Your task to perform on an android device: open app "Adobe Acrobat Reader" (install if not already installed) and enter user name: "nondescriptly@inbox.com" and password: "negating" Image 0: 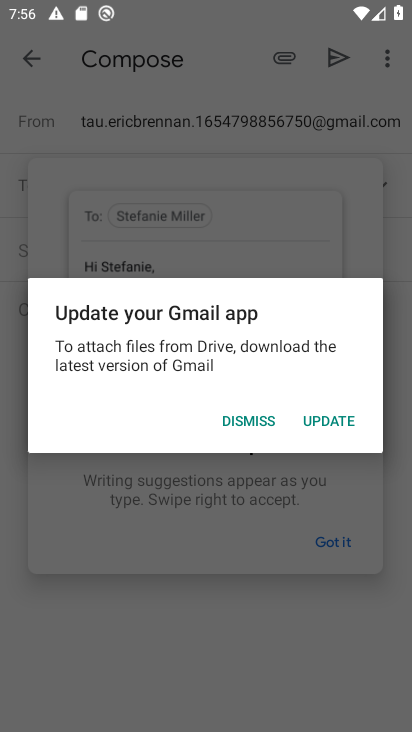
Step 0: press home button
Your task to perform on an android device: open app "Adobe Acrobat Reader" (install if not already installed) and enter user name: "nondescriptly@inbox.com" and password: "negating" Image 1: 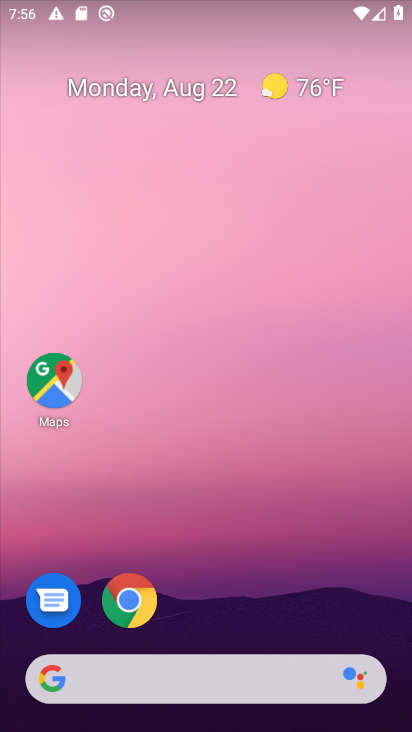
Step 1: drag from (211, 607) to (218, 184)
Your task to perform on an android device: open app "Adobe Acrobat Reader" (install if not already installed) and enter user name: "nondescriptly@inbox.com" and password: "negating" Image 2: 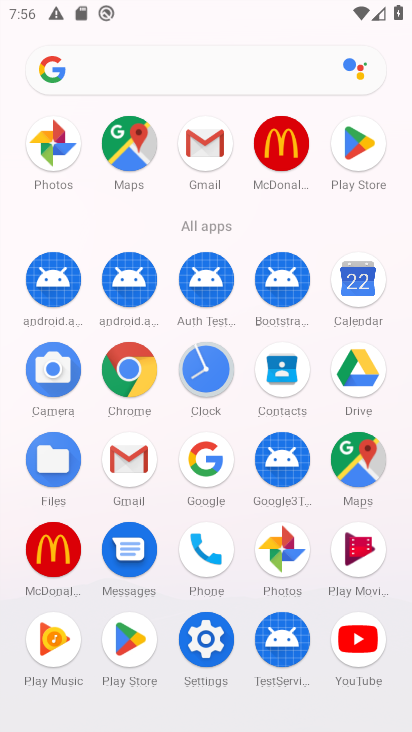
Step 2: click (345, 140)
Your task to perform on an android device: open app "Adobe Acrobat Reader" (install if not already installed) and enter user name: "nondescriptly@inbox.com" and password: "negating" Image 3: 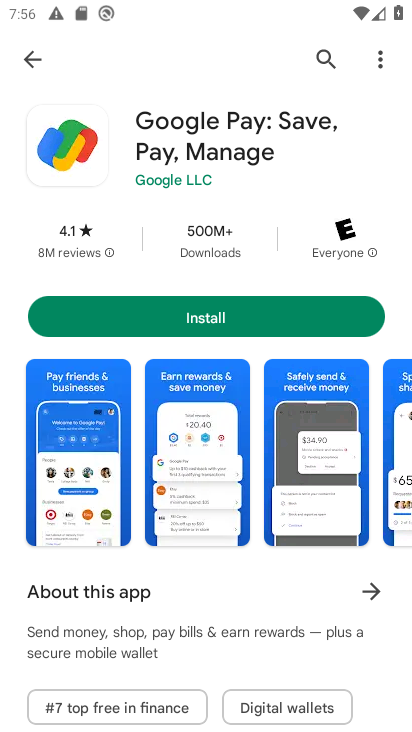
Step 3: click (326, 58)
Your task to perform on an android device: open app "Adobe Acrobat Reader" (install if not already installed) and enter user name: "nondescriptly@inbox.com" and password: "negating" Image 4: 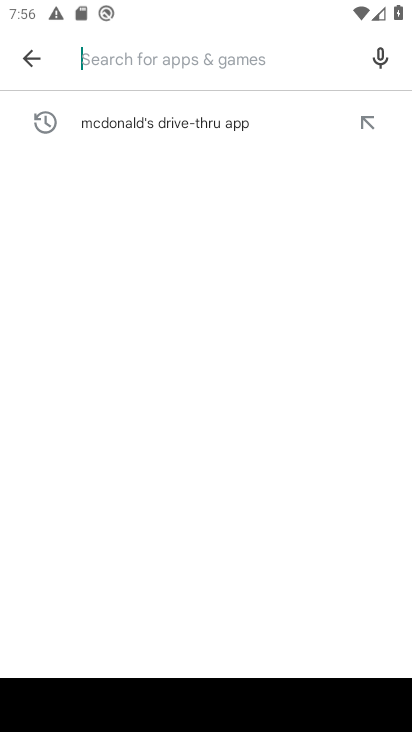
Step 4: type "Adobe Acrobat Reader"
Your task to perform on an android device: open app "Adobe Acrobat Reader" (install if not already installed) and enter user name: "nondescriptly@inbox.com" and password: "negating" Image 5: 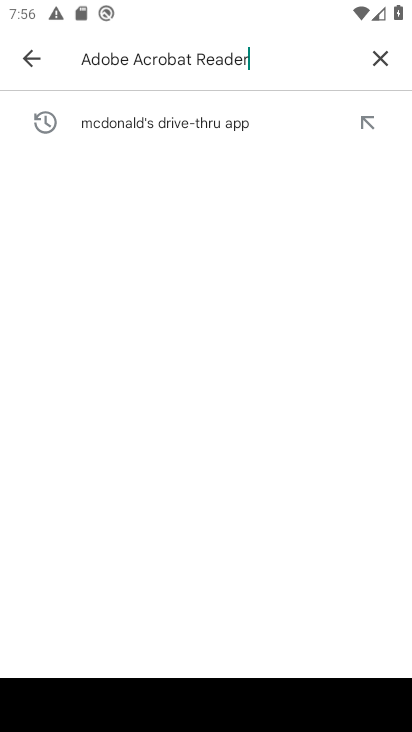
Step 5: type ""
Your task to perform on an android device: open app "Adobe Acrobat Reader" (install if not already installed) and enter user name: "nondescriptly@inbox.com" and password: "negating" Image 6: 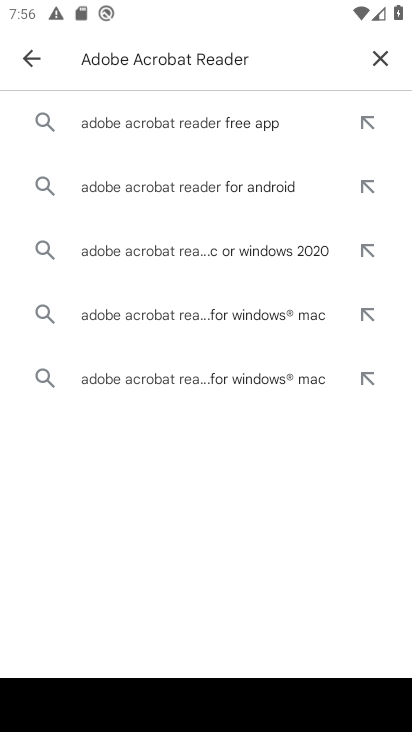
Step 6: click (219, 122)
Your task to perform on an android device: open app "Adobe Acrobat Reader" (install if not already installed) and enter user name: "nondescriptly@inbox.com" and password: "negating" Image 7: 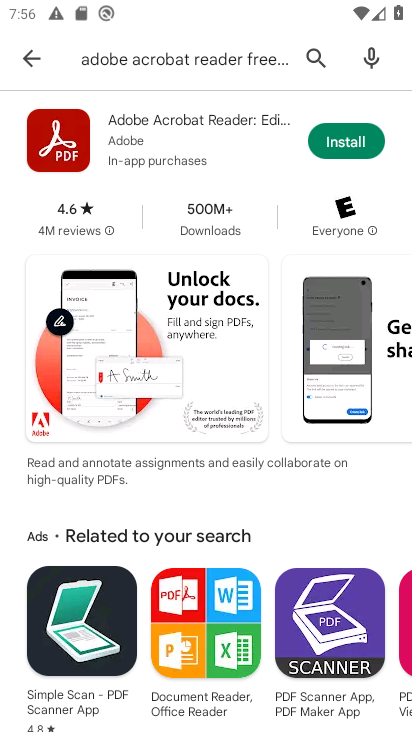
Step 7: click (357, 138)
Your task to perform on an android device: open app "Adobe Acrobat Reader" (install if not already installed) and enter user name: "nondescriptly@inbox.com" and password: "negating" Image 8: 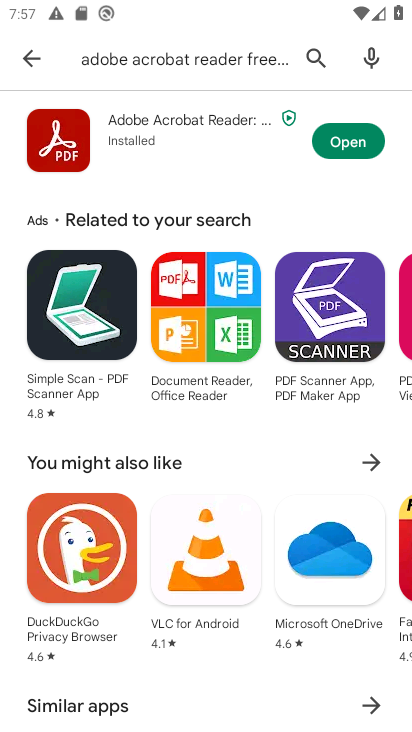
Step 8: click (357, 138)
Your task to perform on an android device: open app "Adobe Acrobat Reader" (install if not already installed) and enter user name: "nondescriptly@inbox.com" and password: "negating" Image 9: 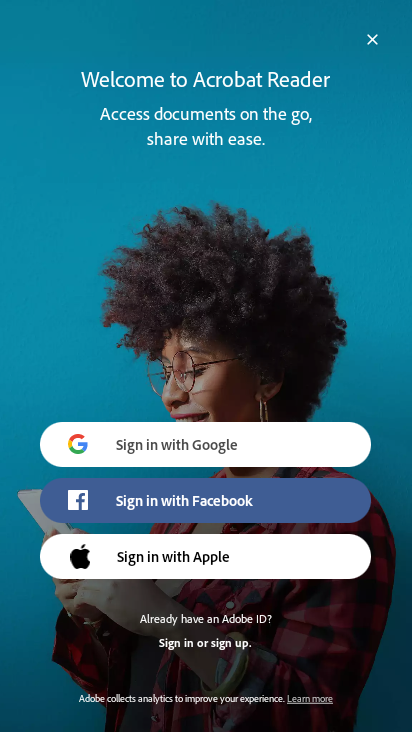
Step 9: task complete